Your task to perform on an android device: Show the shopping cart on amazon. Image 0: 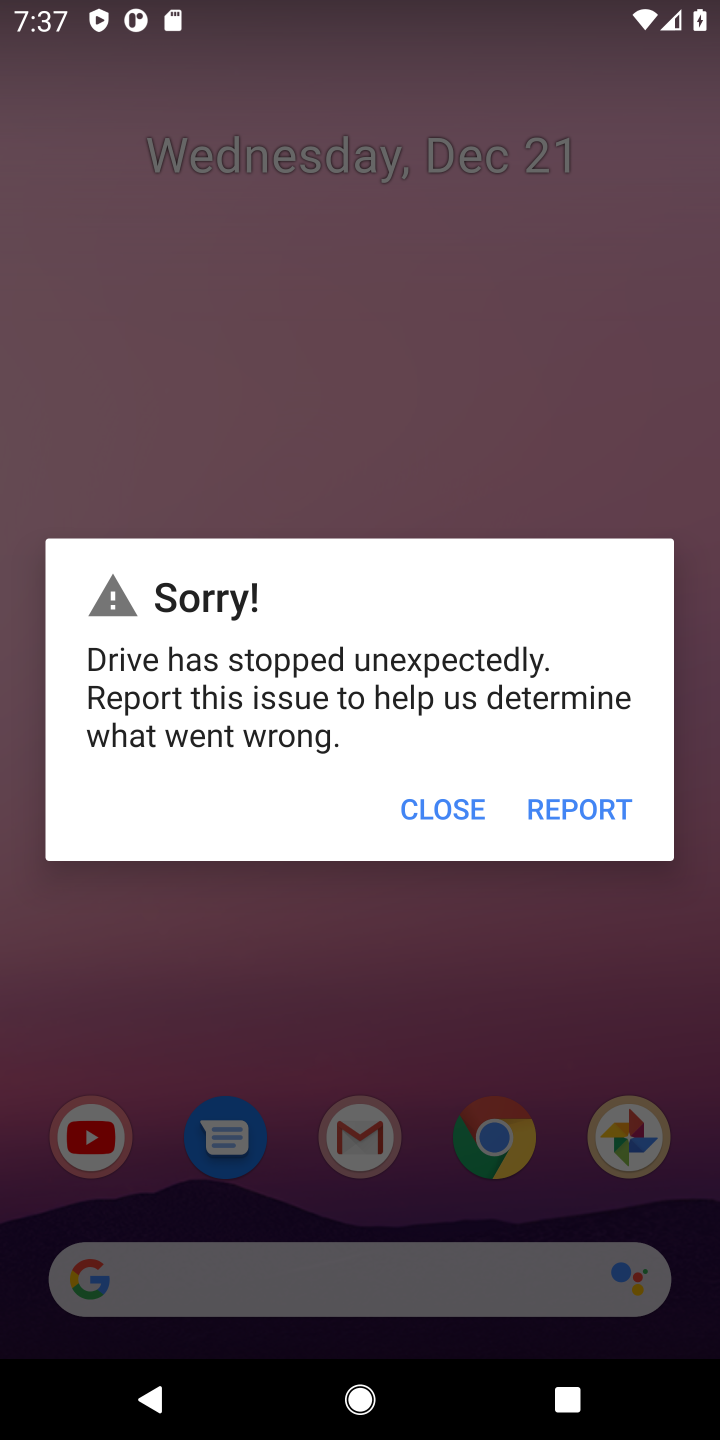
Step 0: press home button
Your task to perform on an android device: Show the shopping cart on amazon. Image 1: 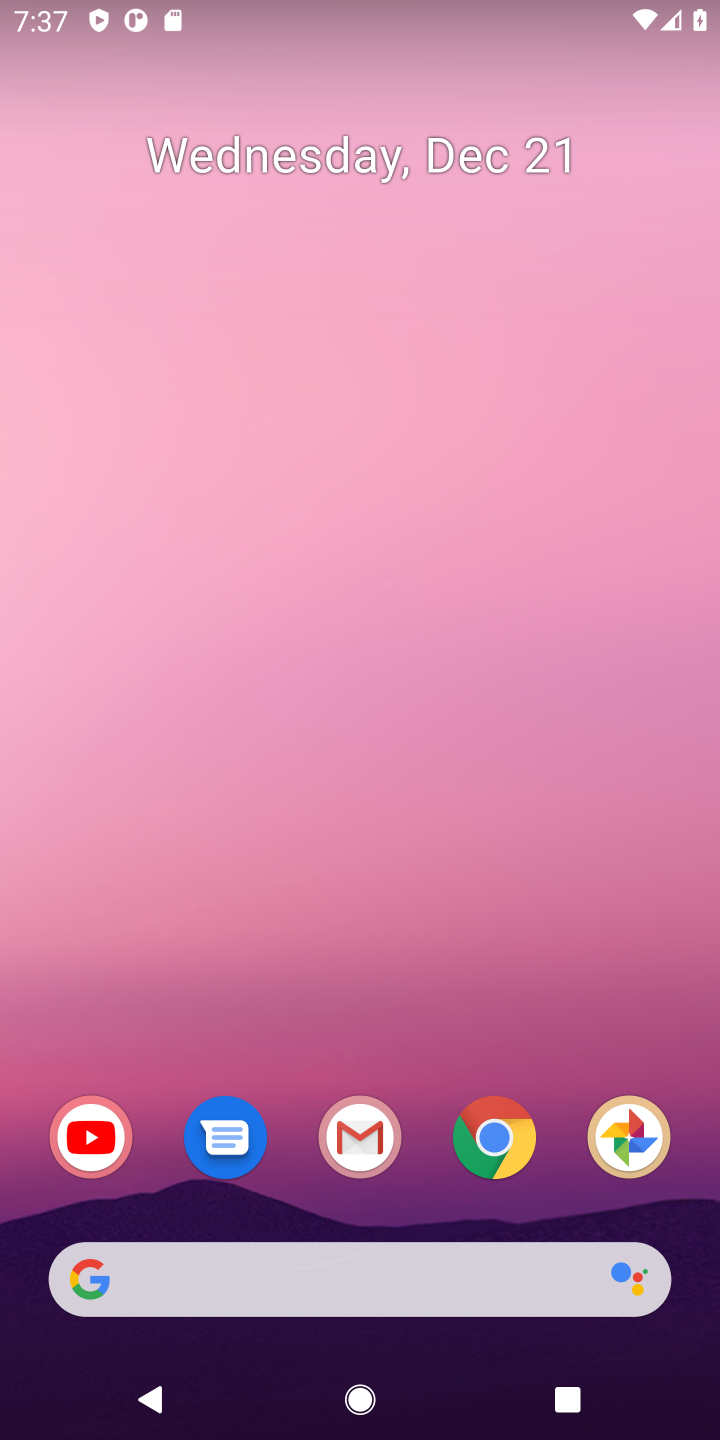
Step 1: click (497, 1149)
Your task to perform on an android device: Show the shopping cart on amazon. Image 2: 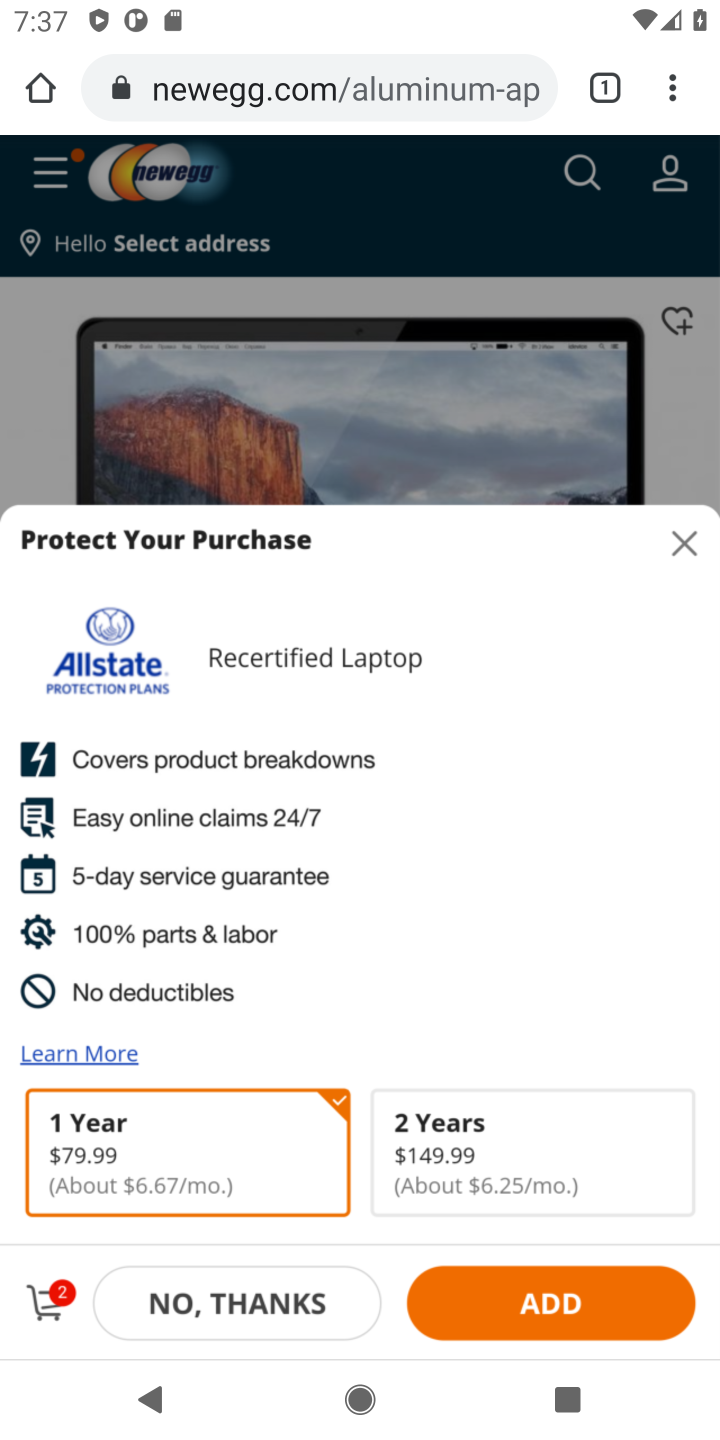
Step 2: click (280, 98)
Your task to perform on an android device: Show the shopping cart on amazon. Image 3: 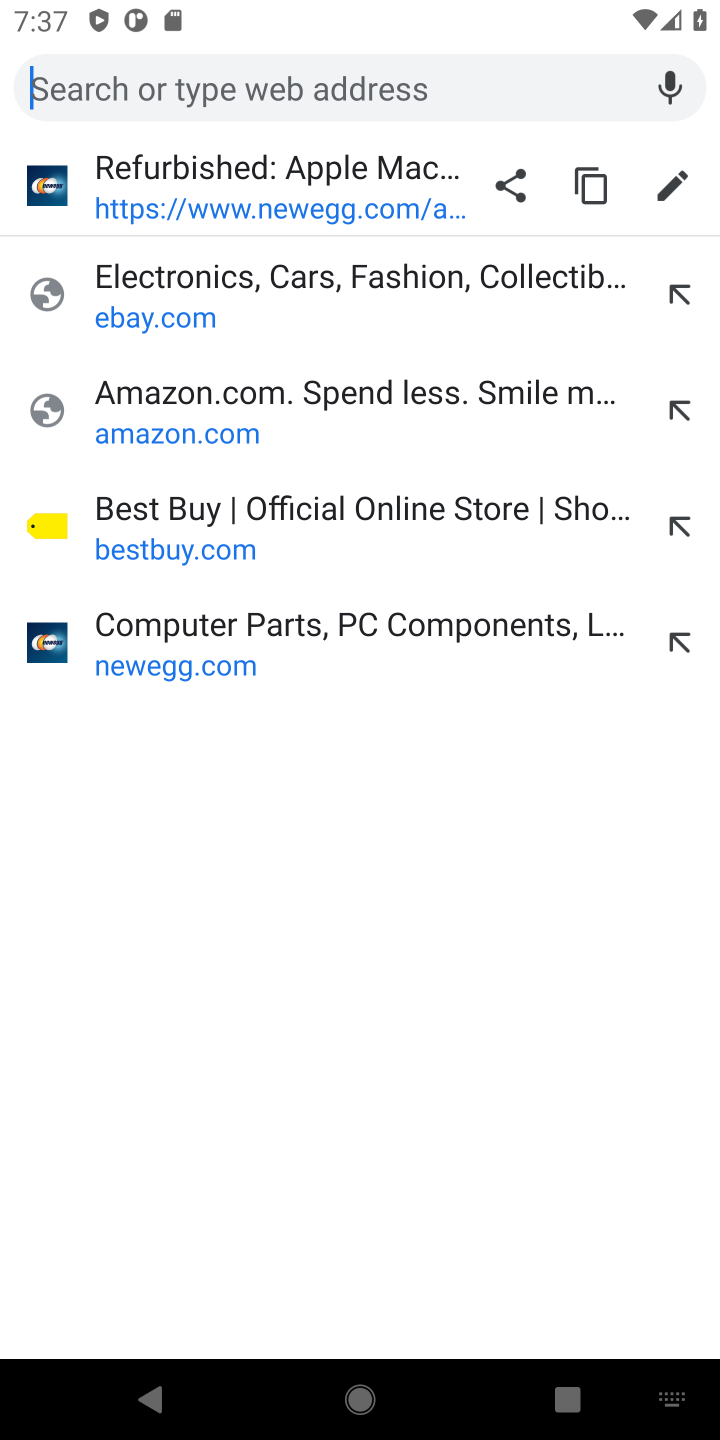
Step 3: click (169, 396)
Your task to perform on an android device: Show the shopping cart on amazon. Image 4: 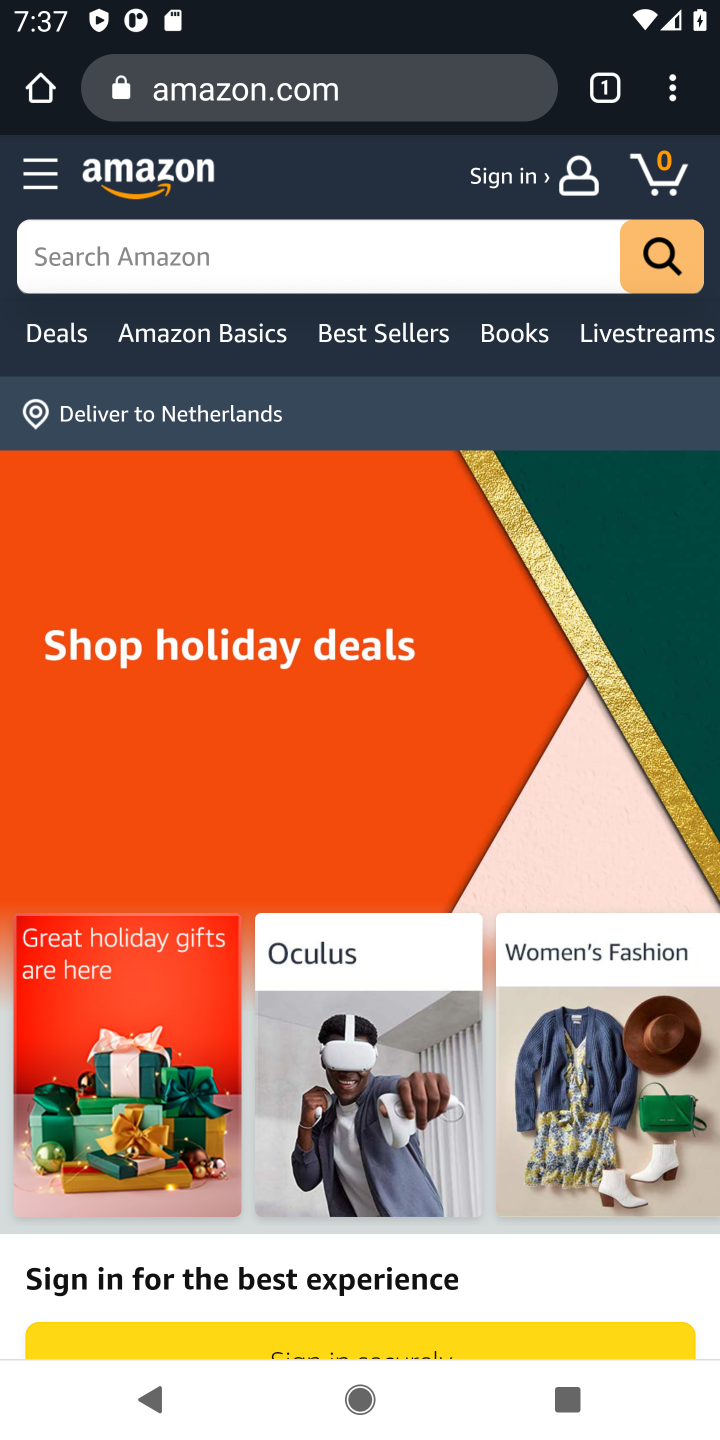
Step 4: click (665, 178)
Your task to perform on an android device: Show the shopping cart on amazon. Image 5: 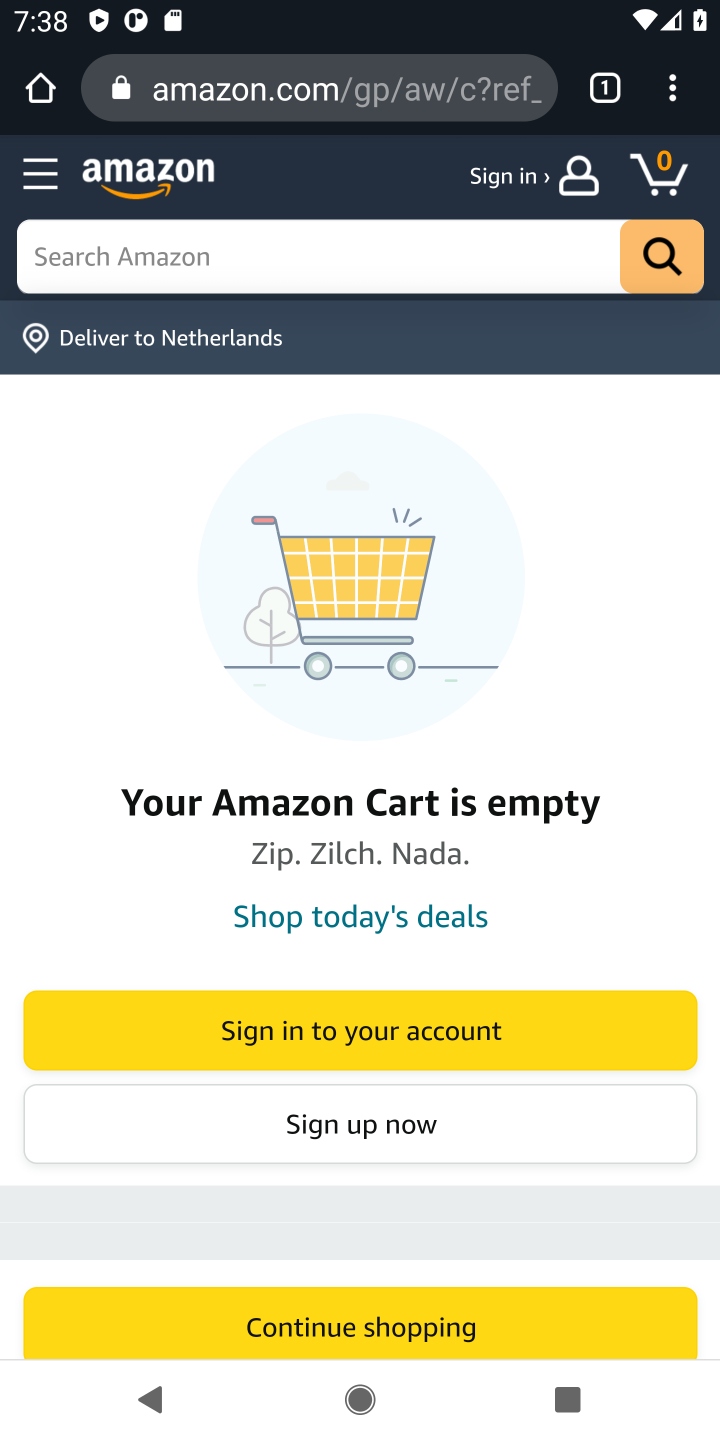
Step 5: task complete